Your task to perform on an android device: What's on my calendar today? Image 0: 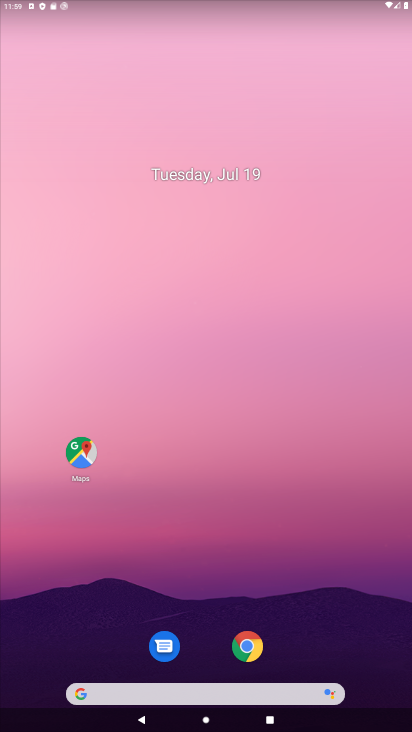
Step 0: click (194, 176)
Your task to perform on an android device: What's on my calendar today? Image 1: 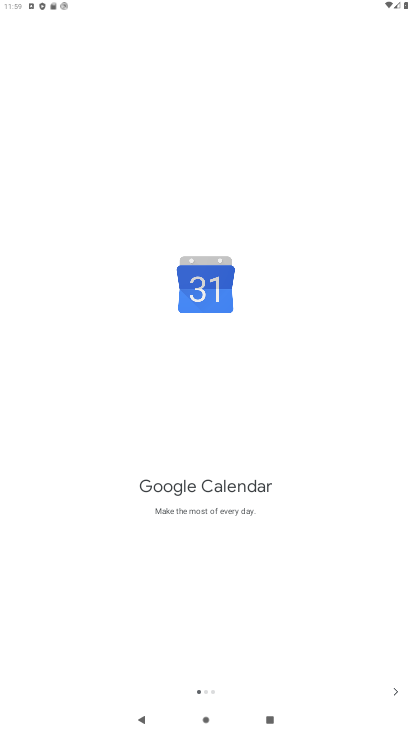
Step 1: click (394, 694)
Your task to perform on an android device: What's on my calendar today? Image 2: 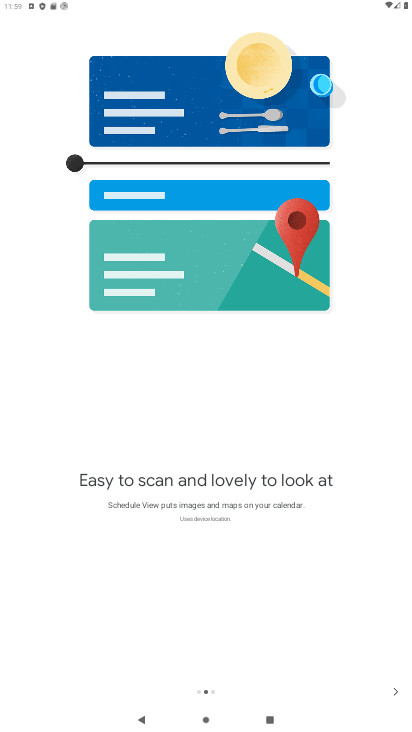
Step 2: click (394, 694)
Your task to perform on an android device: What's on my calendar today? Image 3: 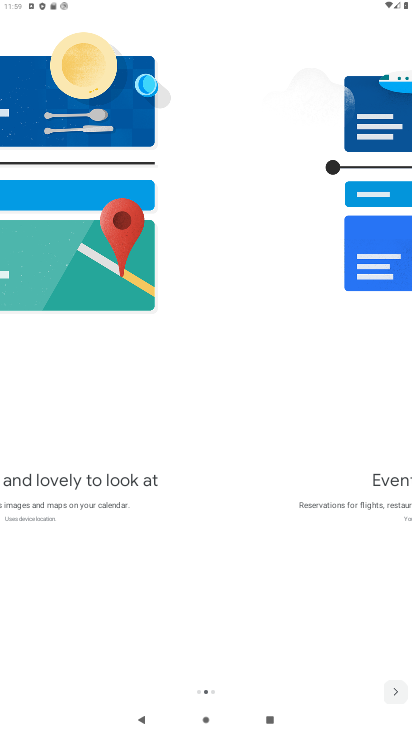
Step 3: click (394, 694)
Your task to perform on an android device: What's on my calendar today? Image 4: 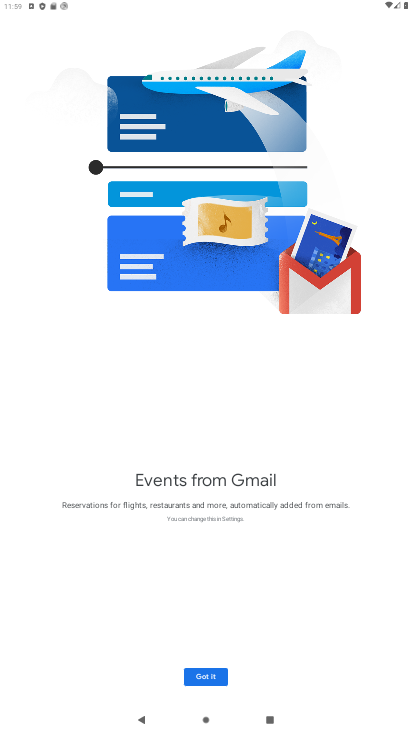
Step 4: click (394, 694)
Your task to perform on an android device: What's on my calendar today? Image 5: 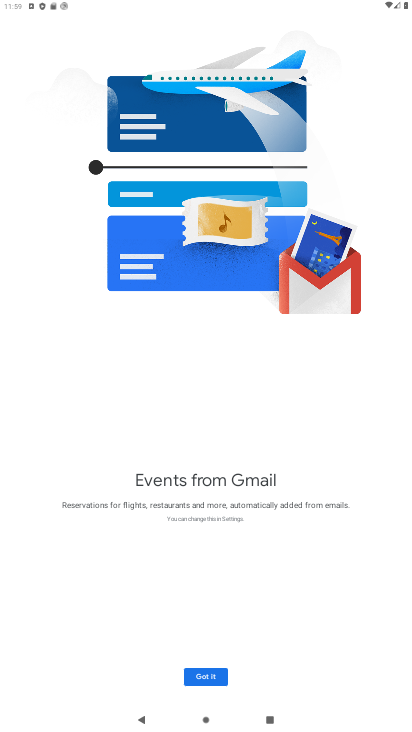
Step 5: click (192, 673)
Your task to perform on an android device: What's on my calendar today? Image 6: 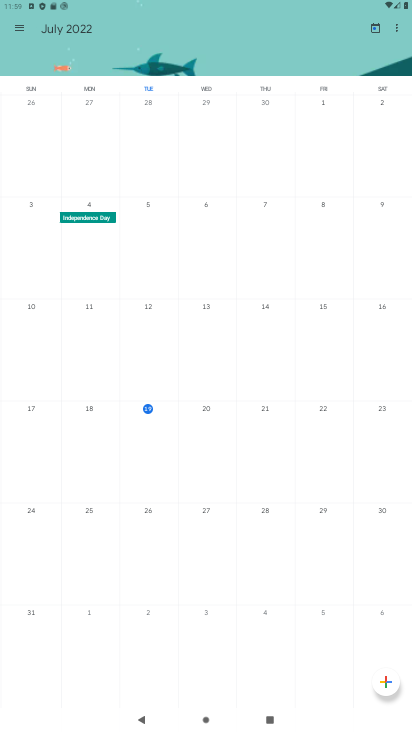
Step 6: click (26, 38)
Your task to perform on an android device: What's on my calendar today? Image 7: 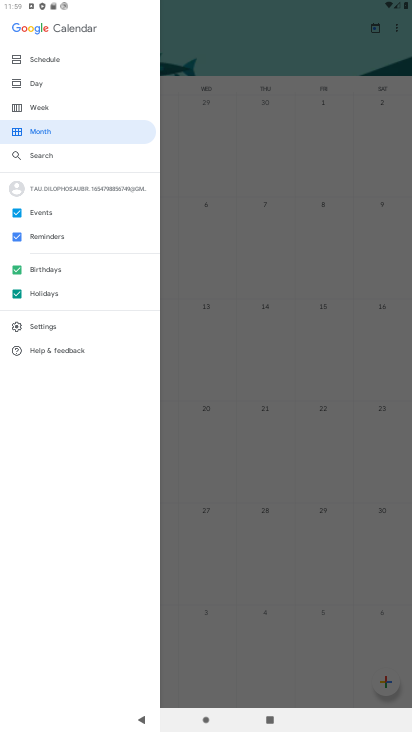
Step 7: click (253, 332)
Your task to perform on an android device: What's on my calendar today? Image 8: 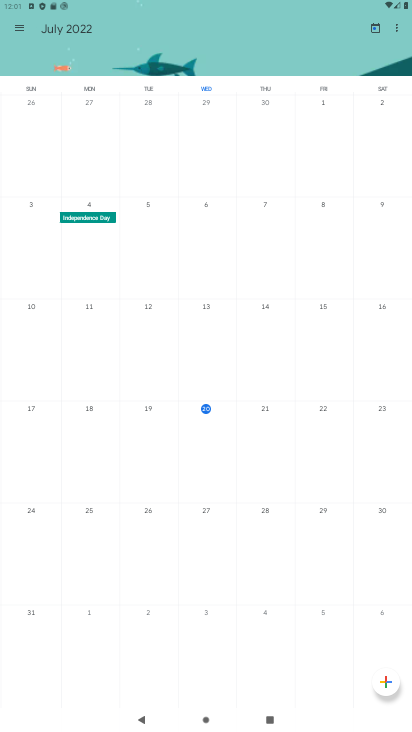
Step 8: click (20, 26)
Your task to perform on an android device: What's on my calendar today? Image 9: 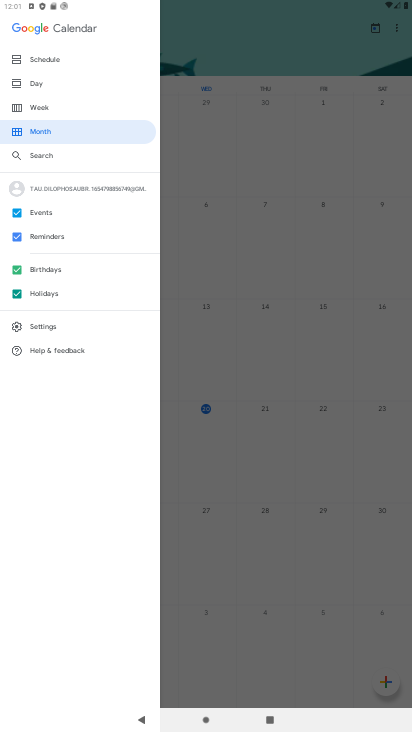
Step 9: click (60, 91)
Your task to perform on an android device: What's on my calendar today? Image 10: 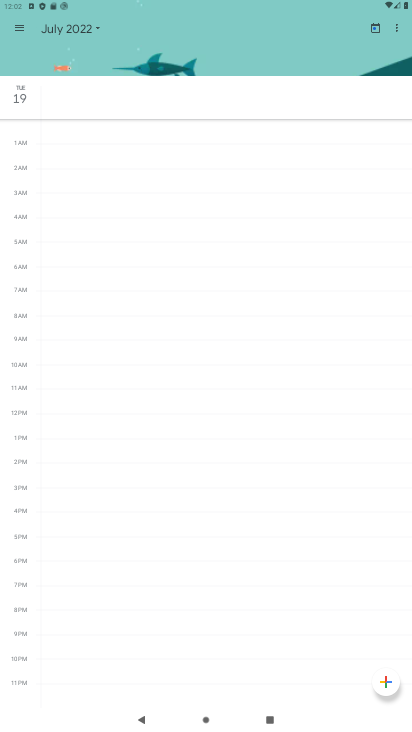
Step 10: task complete